Your task to perform on an android device: Go to location settings Image 0: 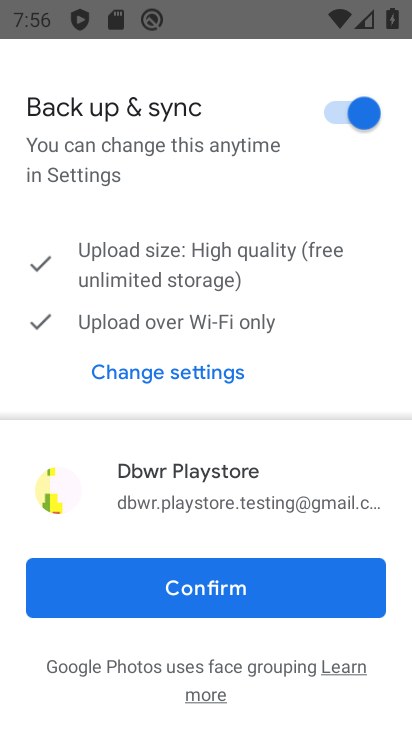
Step 0: press home button
Your task to perform on an android device: Go to location settings Image 1: 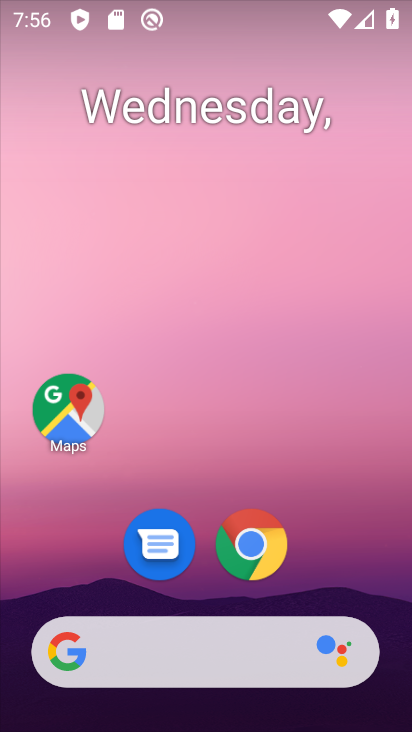
Step 1: drag from (195, 721) to (24, 203)
Your task to perform on an android device: Go to location settings Image 2: 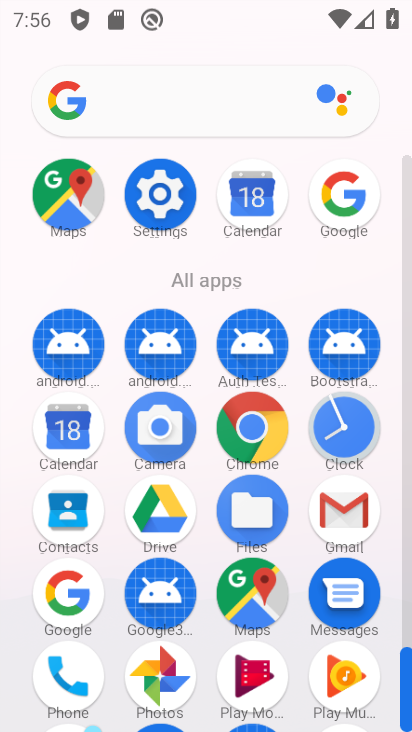
Step 2: click (166, 182)
Your task to perform on an android device: Go to location settings Image 3: 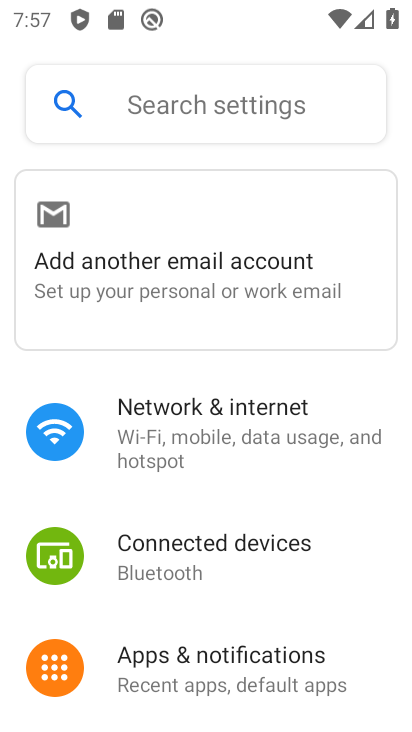
Step 3: drag from (176, 661) to (218, 249)
Your task to perform on an android device: Go to location settings Image 4: 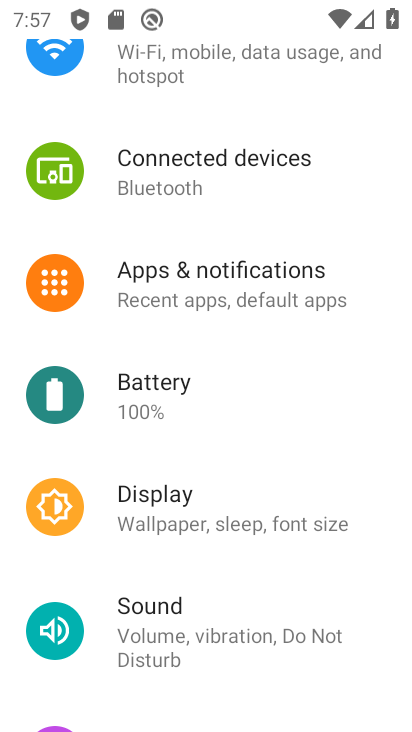
Step 4: drag from (145, 644) to (156, 187)
Your task to perform on an android device: Go to location settings Image 5: 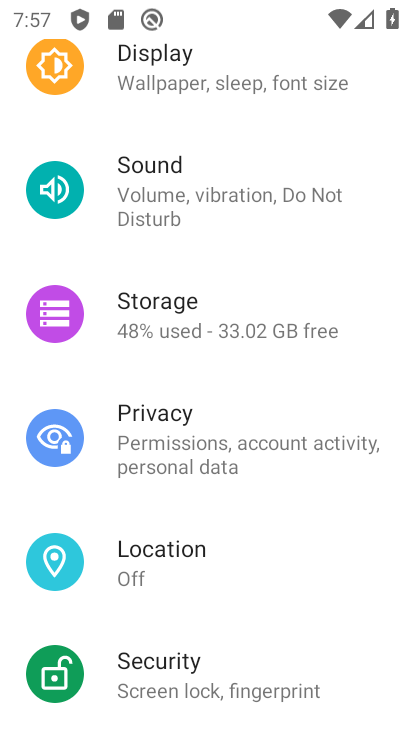
Step 5: click (149, 558)
Your task to perform on an android device: Go to location settings Image 6: 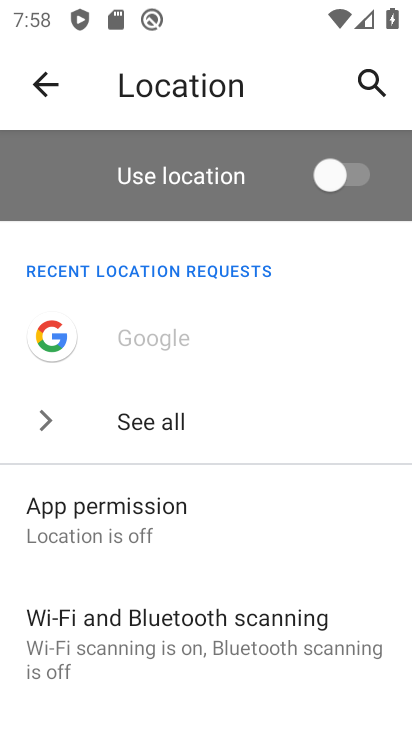
Step 6: task complete